Your task to perform on an android device: turn on the 12-hour format for clock Image 0: 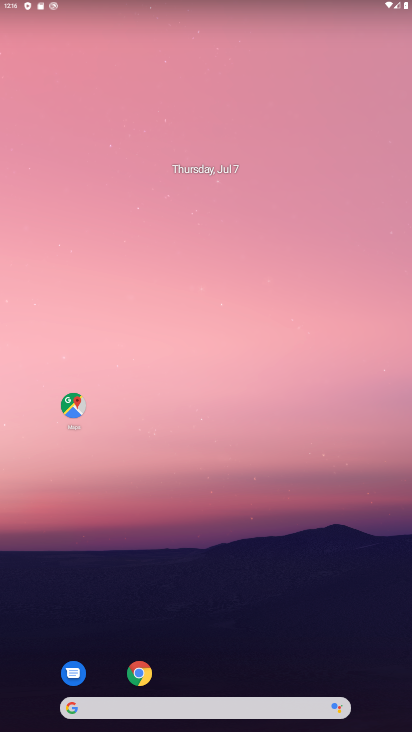
Step 0: click (142, 669)
Your task to perform on an android device: turn on the 12-hour format for clock Image 1: 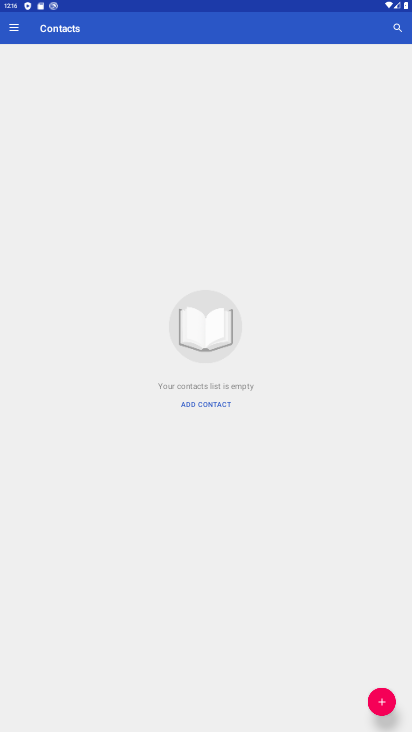
Step 1: press home button
Your task to perform on an android device: turn on the 12-hour format for clock Image 2: 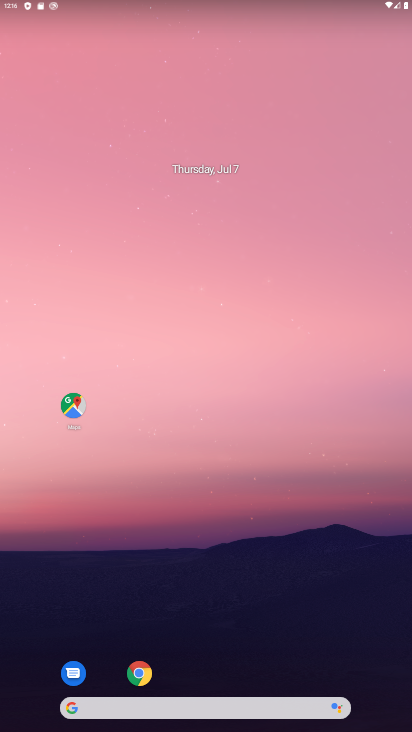
Step 2: drag from (221, 687) to (325, 120)
Your task to perform on an android device: turn on the 12-hour format for clock Image 3: 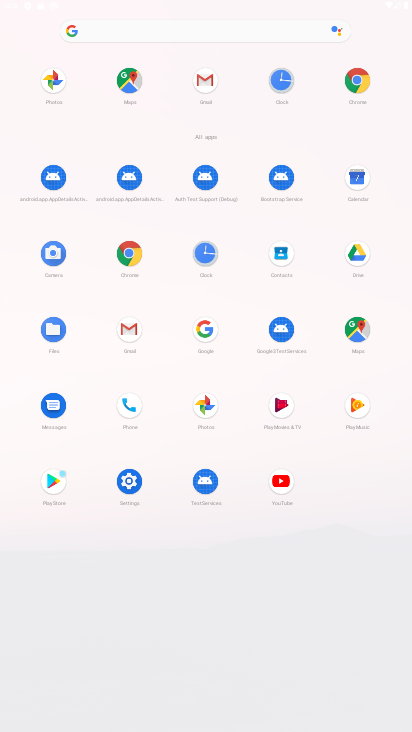
Step 3: click (200, 260)
Your task to perform on an android device: turn on the 12-hour format for clock Image 4: 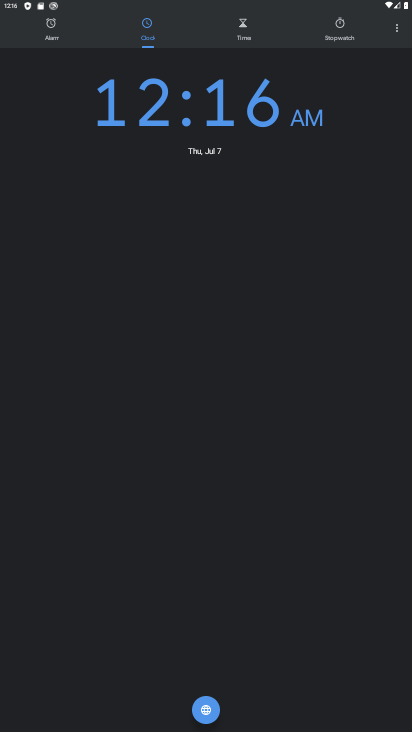
Step 4: click (392, 27)
Your task to perform on an android device: turn on the 12-hour format for clock Image 5: 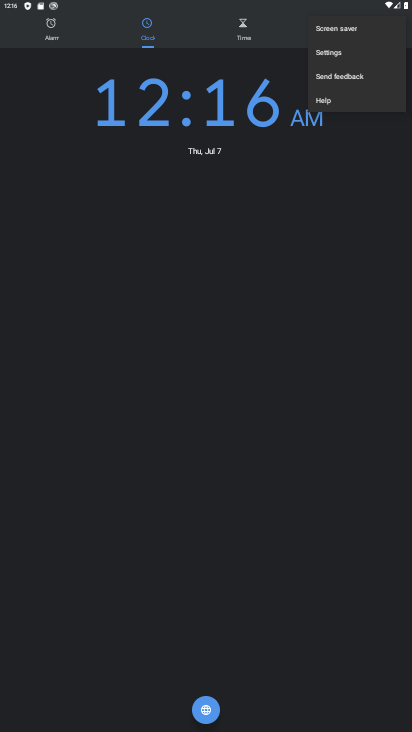
Step 5: click (342, 63)
Your task to perform on an android device: turn on the 12-hour format for clock Image 6: 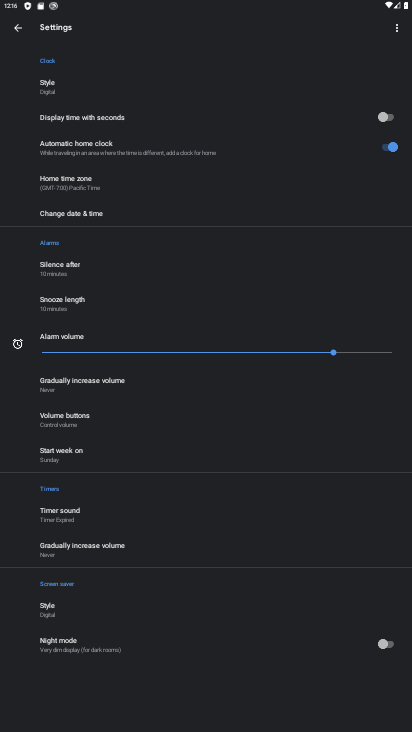
Step 6: click (111, 216)
Your task to perform on an android device: turn on the 12-hour format for clock Image 7: 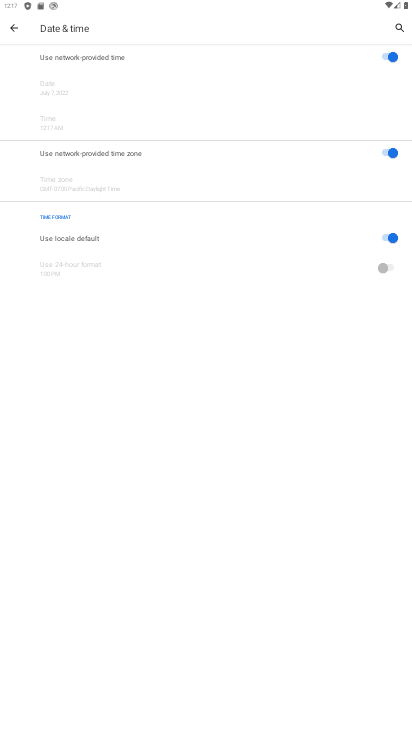
Step 7: task complete